Your task to perform on an android device: Open the calendar and show me this week's events? Image 0: 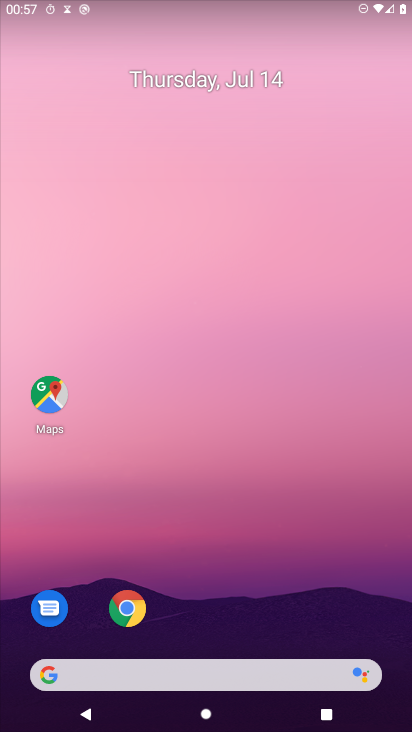
Step 0: press home button
Your task to perform on an android device: Open the calendar and show me this week's events? Image 1: 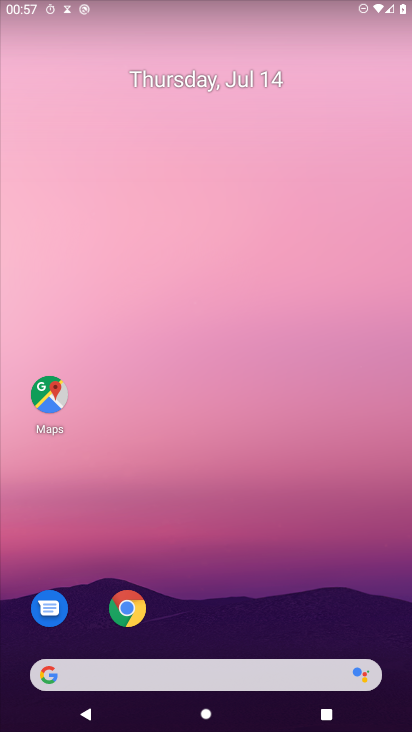
Step 1: drag from (201, 282) to (278, 0)
Your task to perform on an android device: Open the calendar and show me this week's events? Image 2: 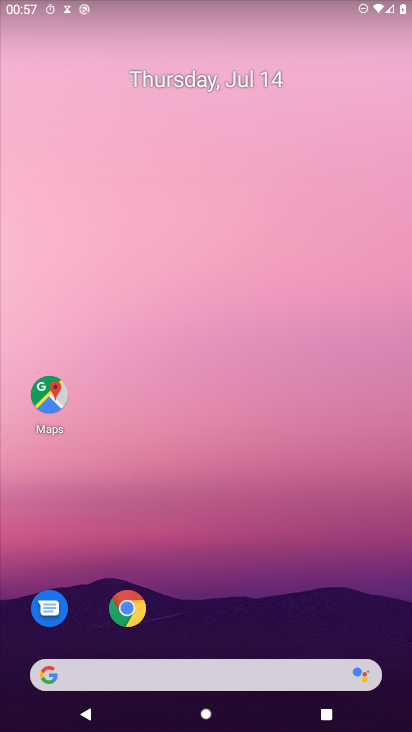
Step 2: drag from (238, 503) to (375, 1)
Your task to perform on an android device: Open the calendar and show me this week's events? Image 3: 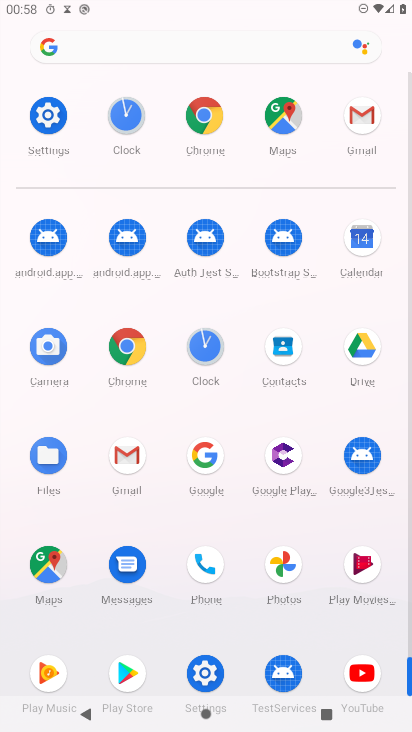
Step 3: click (360, 231)
Your task to perform on an android device: Open the calendar and show me this week's events? Image 4: 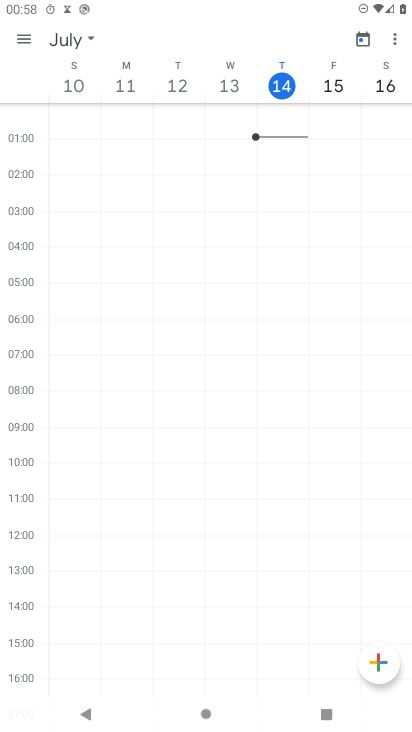
Step 4: click (21, 37)
Your task to perform on an android device: Open the calendar and show me this week's events? Image 5: 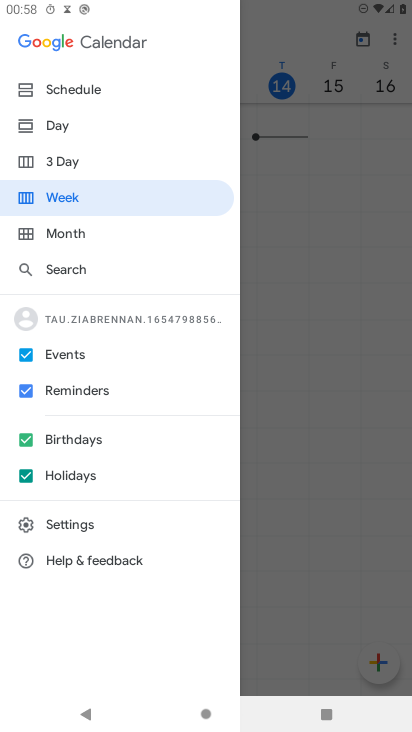
Step 5: click (81, 85)
Your task to perform on an android device: Open the calendar and show me this week's events? Image 6: 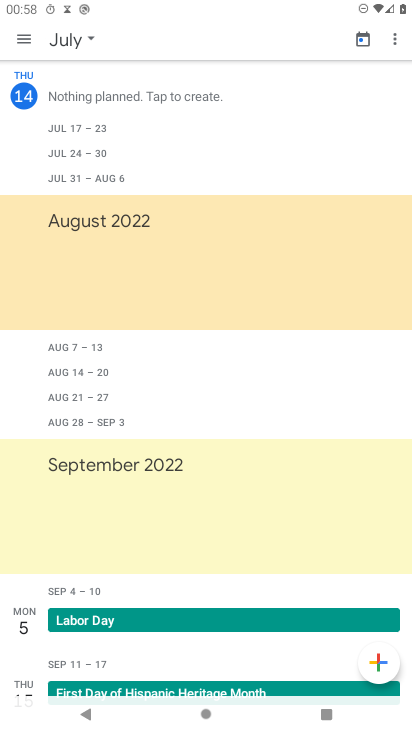
Step 6: task complete